Your task to perform on an android device: turn off picture-in-picture Image 0: 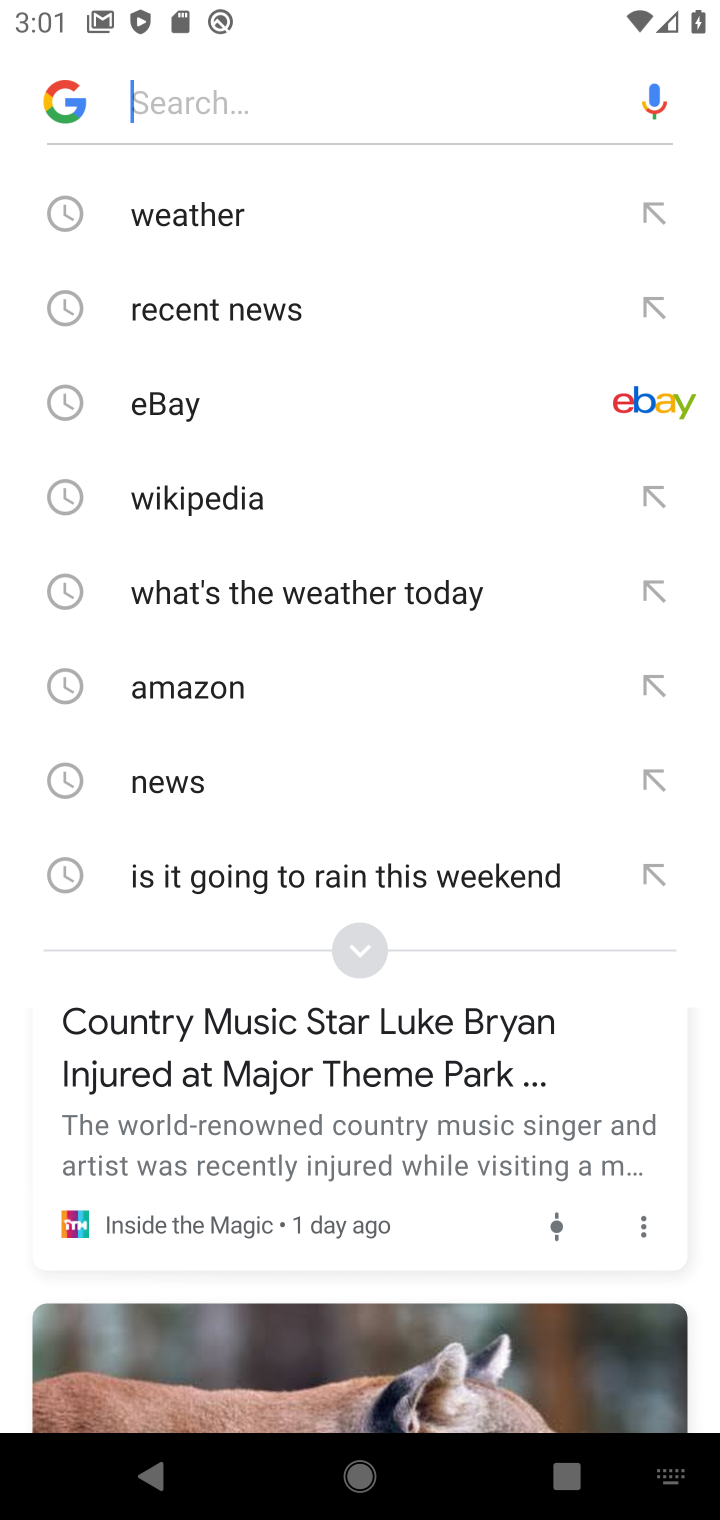
Step 0: press home button
Your task to perform on an android device: turn off picture-in-picture Image 1: 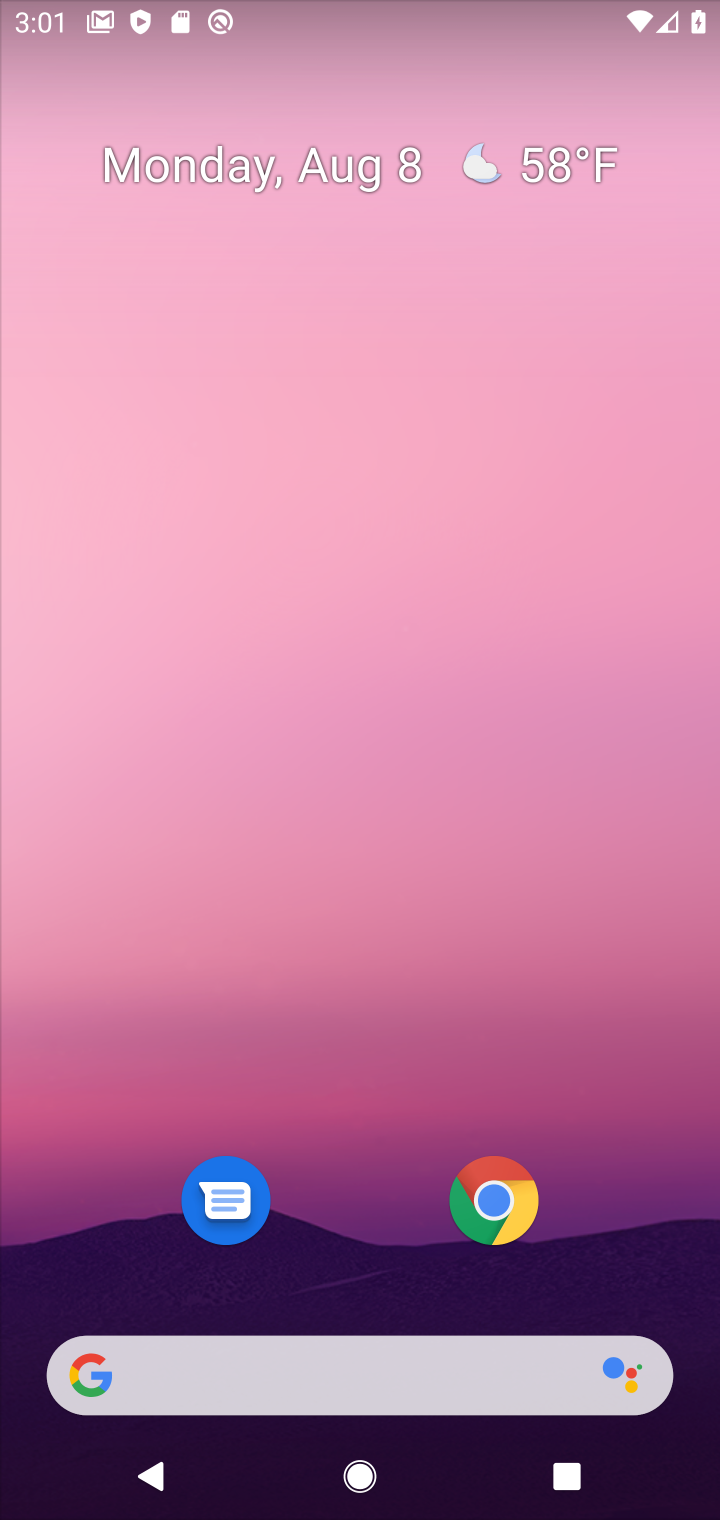
Step 1: click (498, 1200)
Your task to perform on an android device: turn off picture-in-picture Image 2: 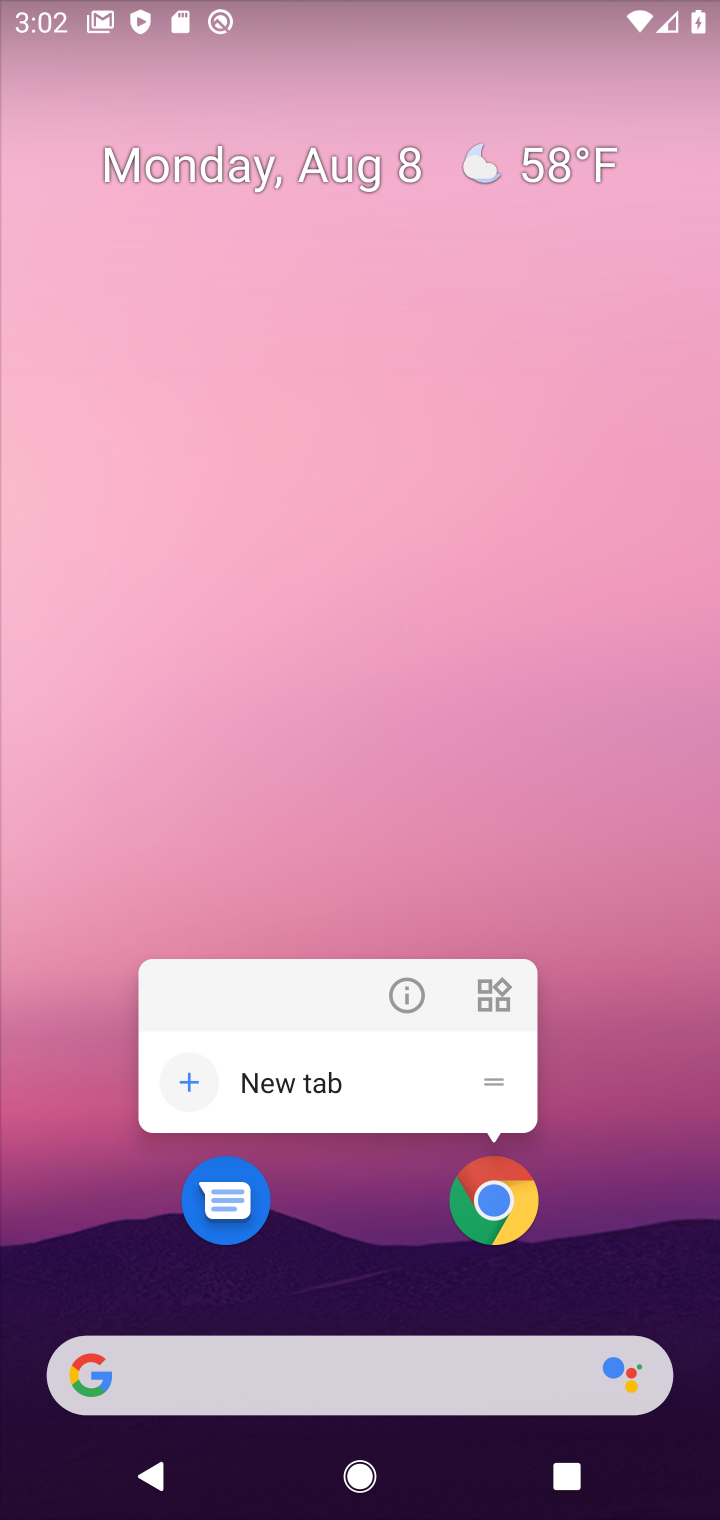
Step 2: click (405, 993)
Your task to perform on an android device: turn off picture-in-picture Image 3: 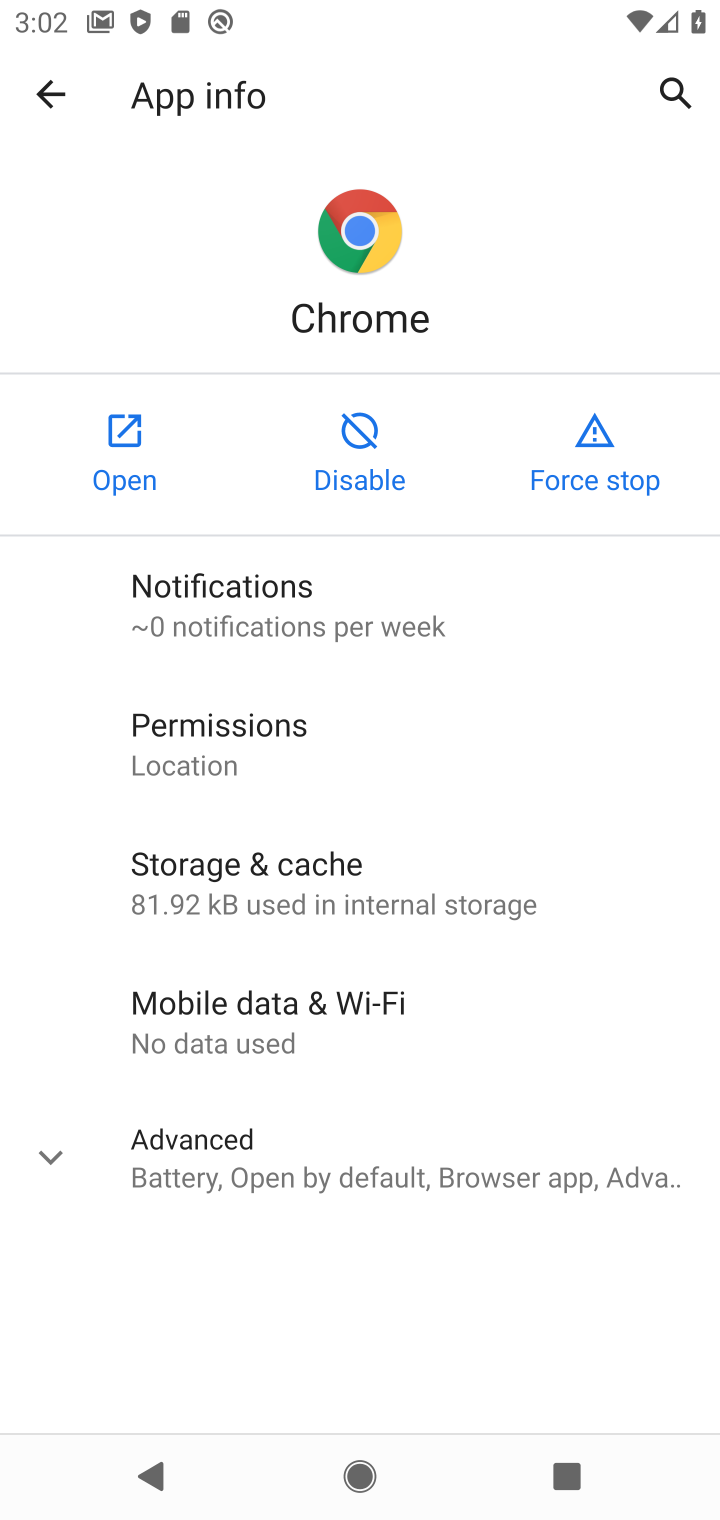
Step 3: click (400, 1152)
Your task to perform on an android device: turn off picture-in-picture Image 4: 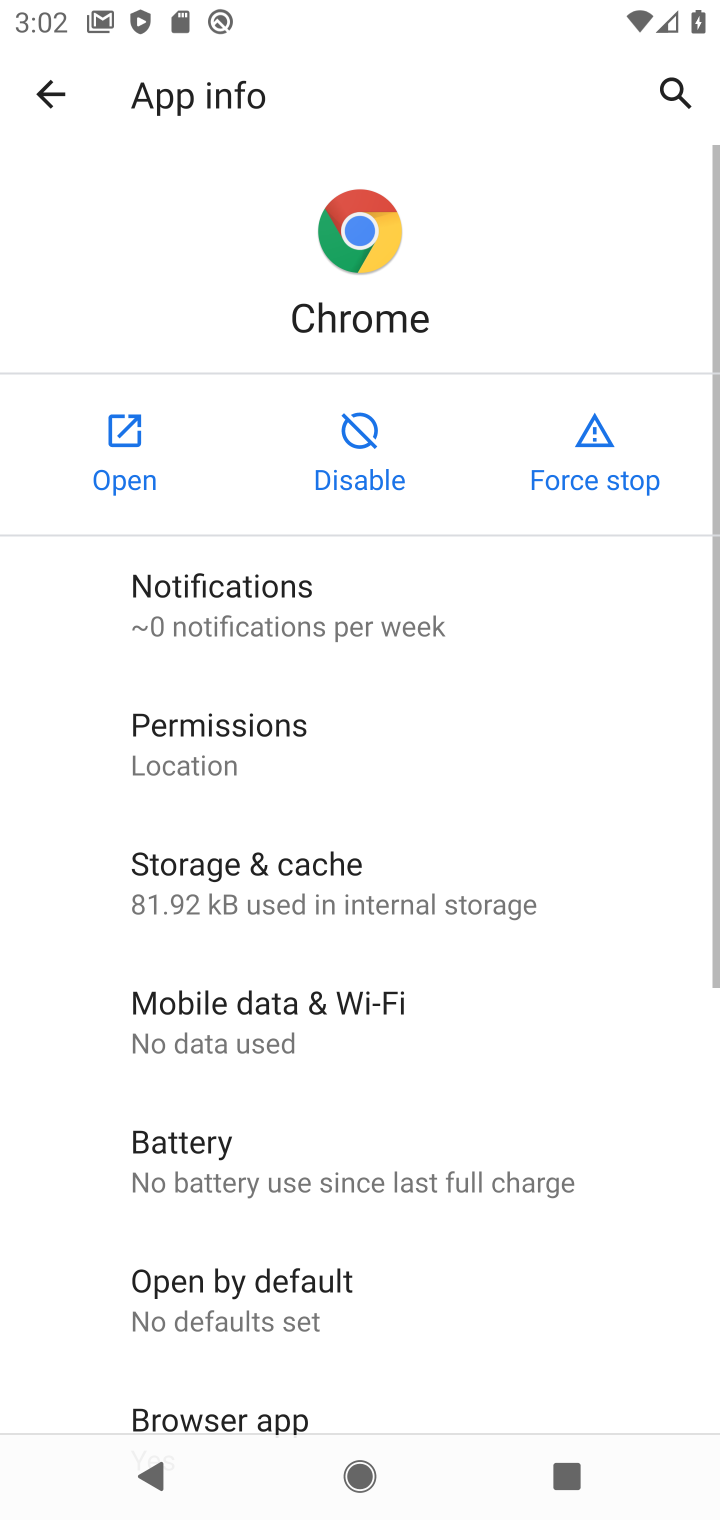
Step 4: drag from (445, 1337) to (243, 771)
Your task to perform on an android device: turn off picture-in-picture Image 5: 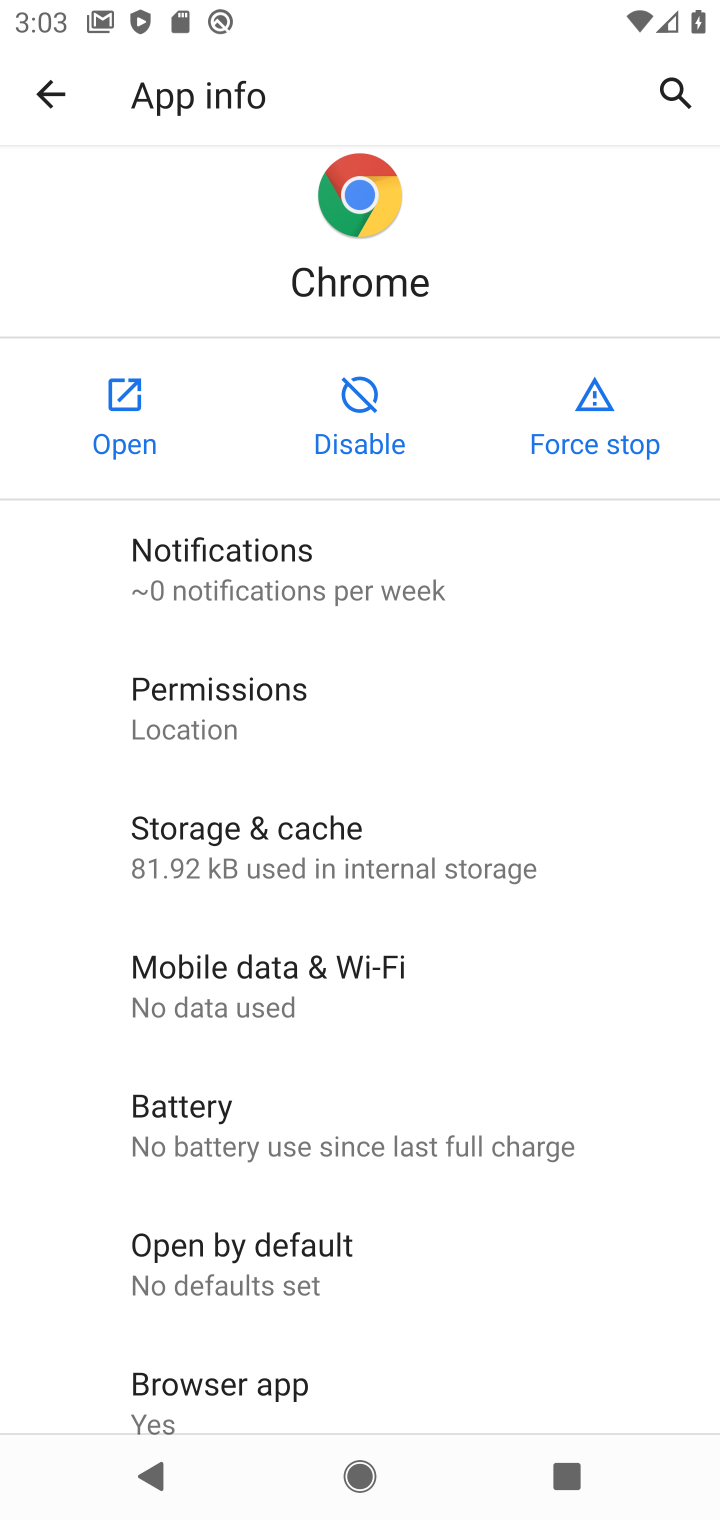
Step 5: drag from (499, 1280) to (253, 669)
Your task to perform on an android device: turn off picture-in-picture Image 6: 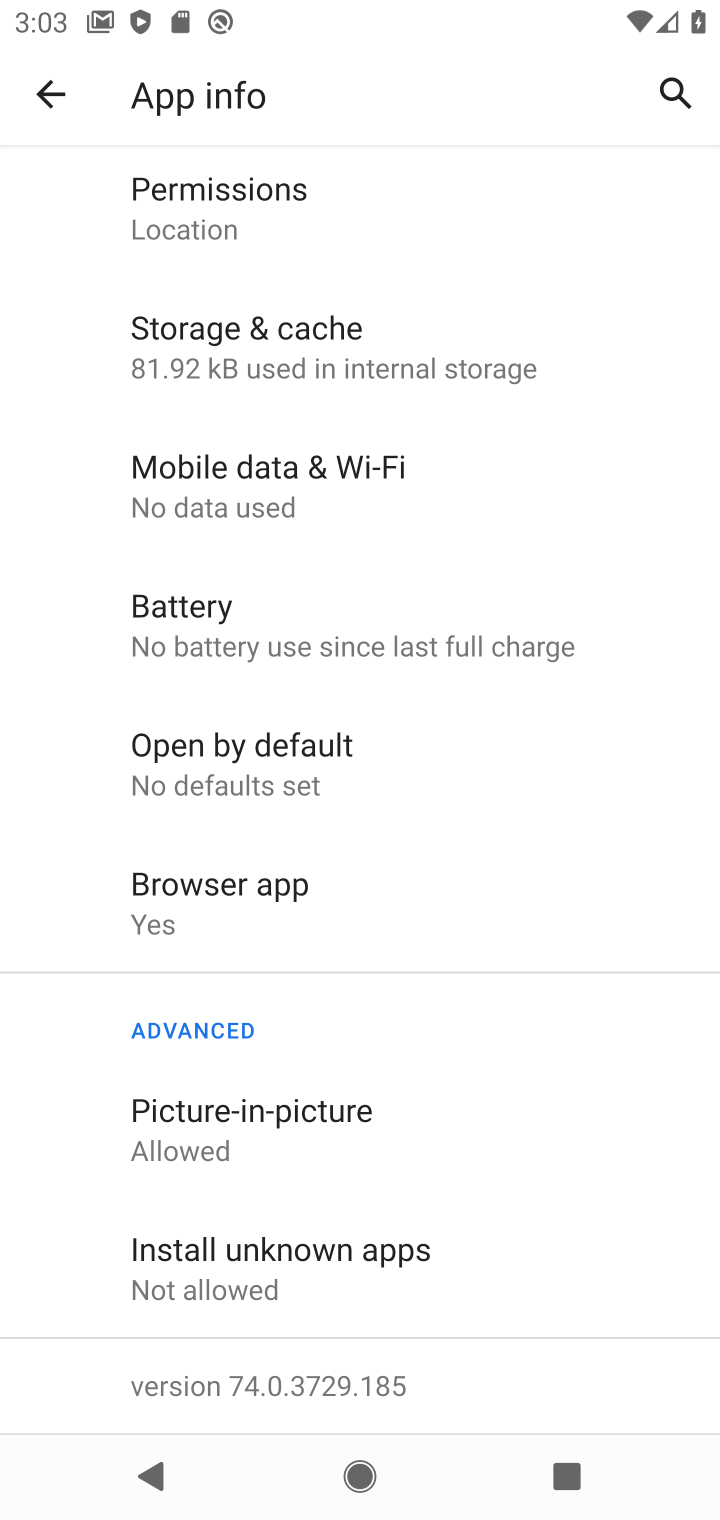
Step 6: click (443, 1103)
Your task to perform on an android device: turn off picture-in-picture Image 7: 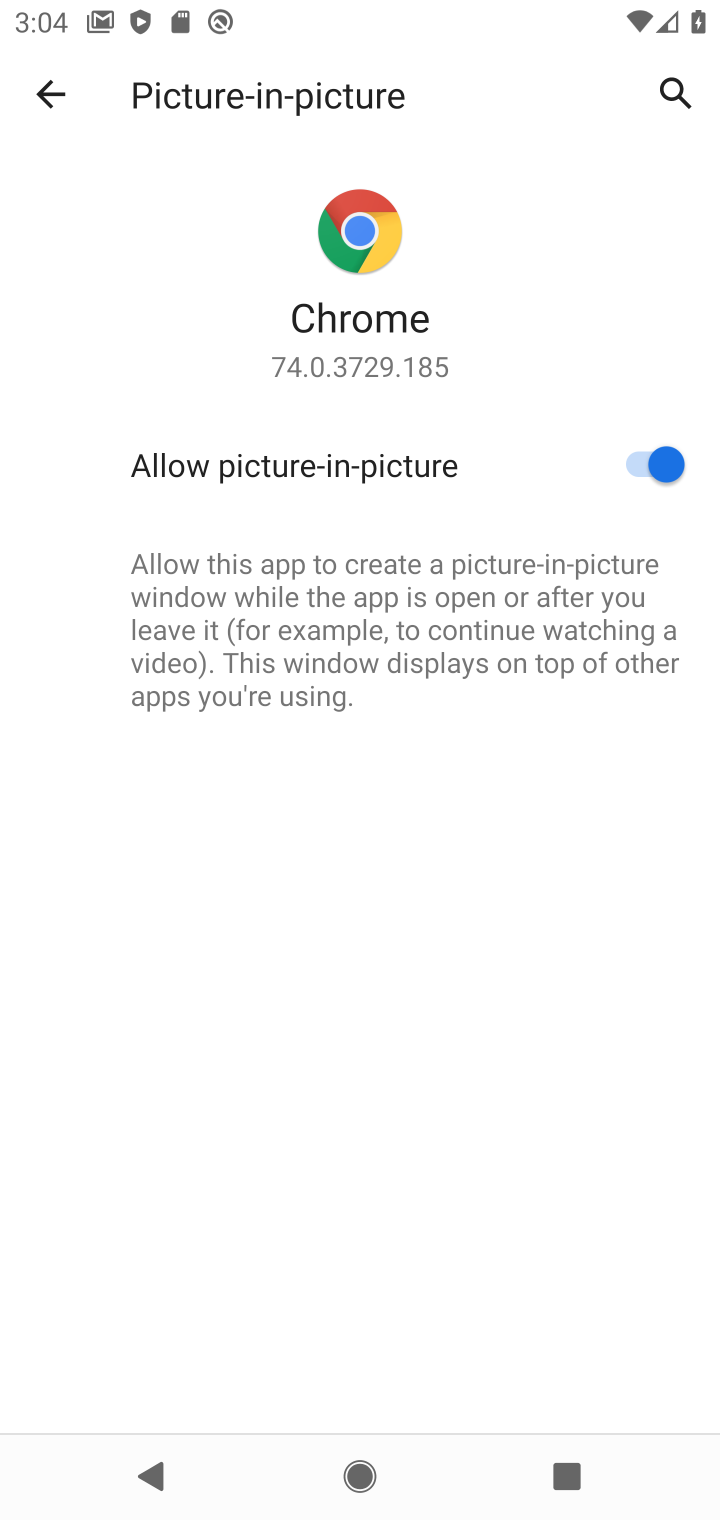
Step 7: click (660, 467)
Your task to perform on an android device: turn off picture-in-picture Image 8: 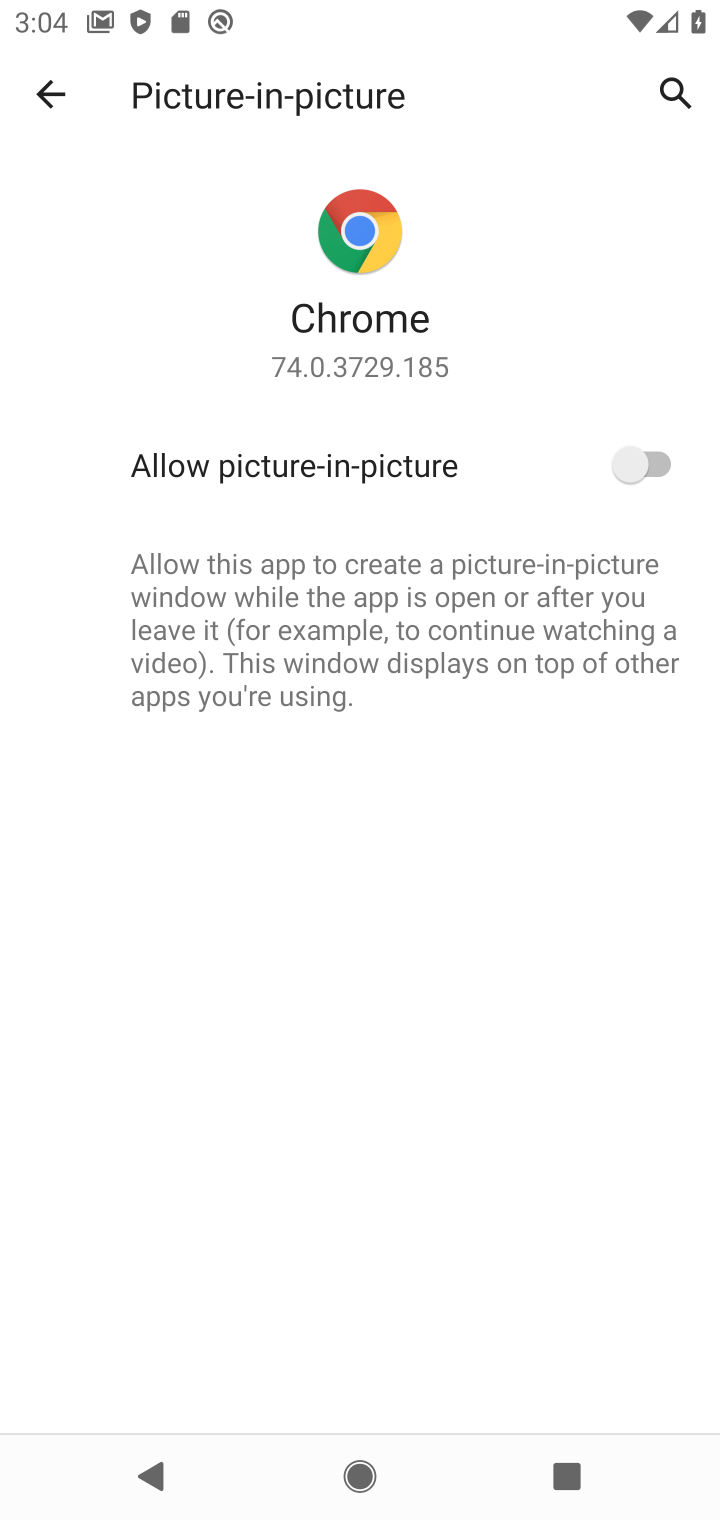
Step 8: task complete